Your task to perform on an android device: See recent photos Image 0: 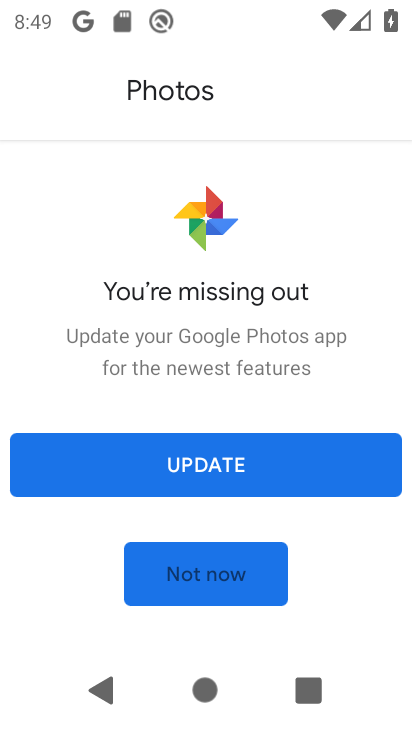
Step 0: click (347, 469)
Your task to perform on an android device: See recent photos Image 1: 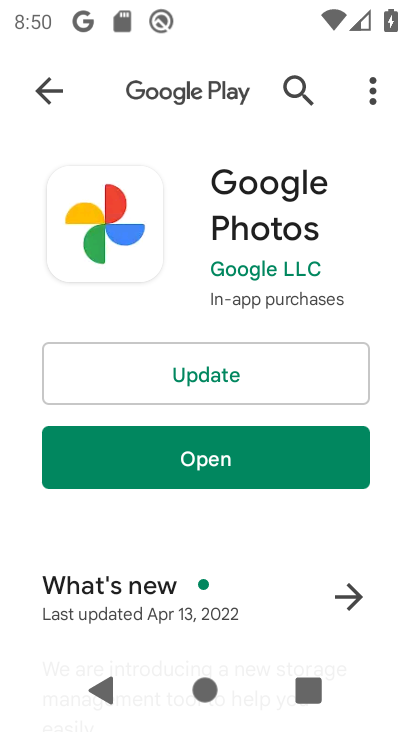
Step 1: click (259, 375)
Your task to perform on an android device: See recent photos Image 2: 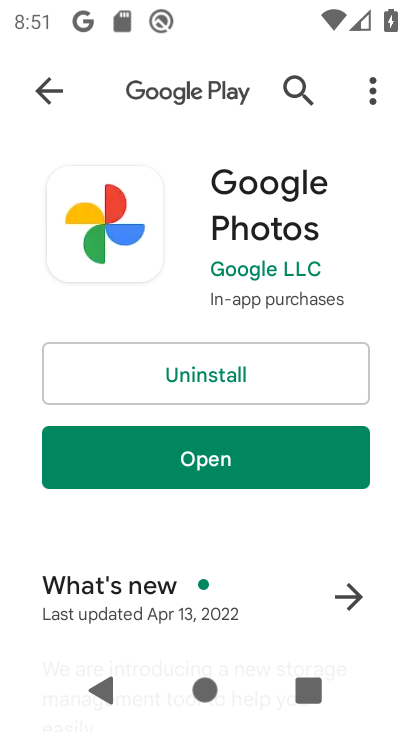
Step 2: click (316, 459)
Your task to perform on an android device: See recent photos Image 3: 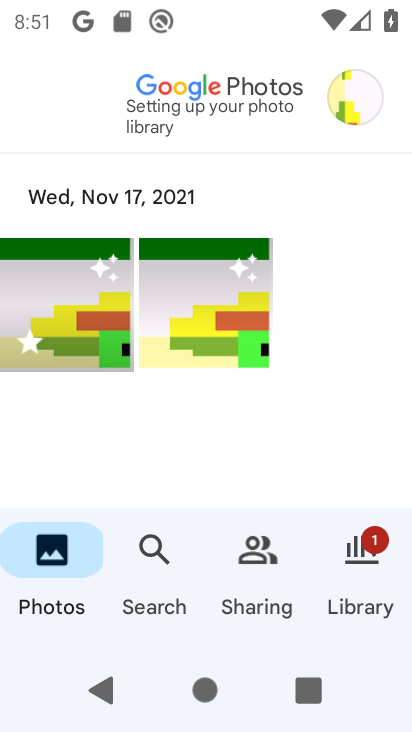
Step 3: click (94, 311)
Your task to perform on an android device: See recent photos Image 4: 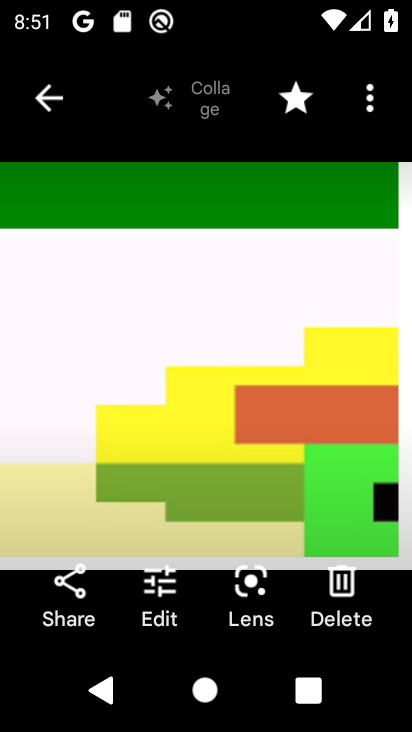
Step 4: task complete